Your task to perform on an android device: toggle javascript in the chrome app Image 0: 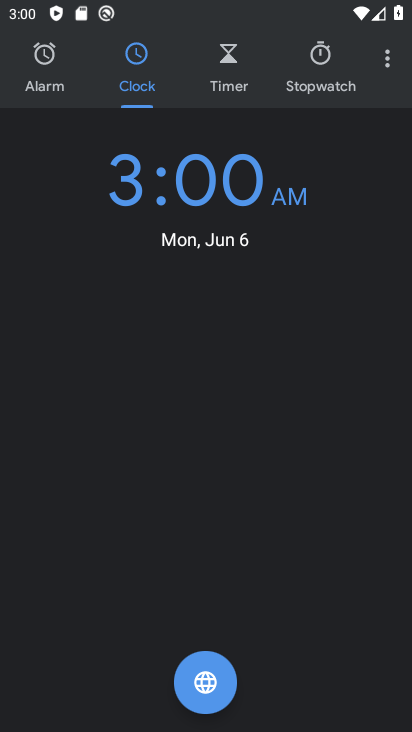
Step 0: press home button
Your task to perform on an android device: toggle javascript in the chrome app Image 1: 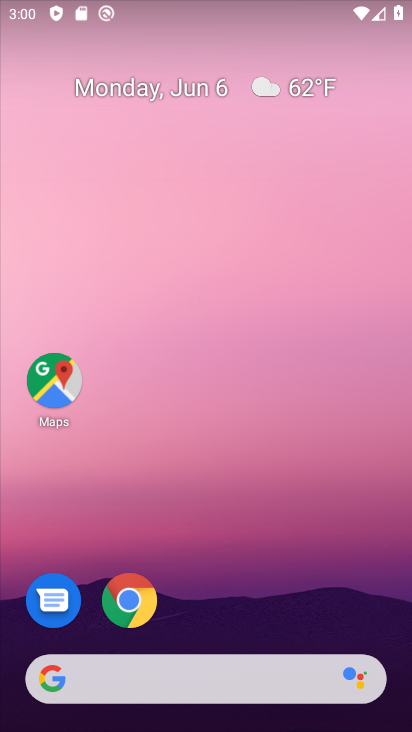
Step 1: click (132, 599)
Your task to perform on an android device: toggle javascript in the chrome app Image 2: 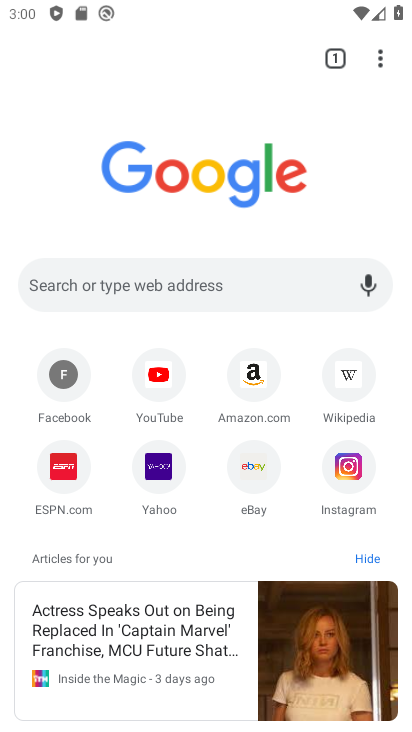
Step 2: click (382, 60)
Your task to perform on an android device: toggle javascript in the chrome app Image 3: 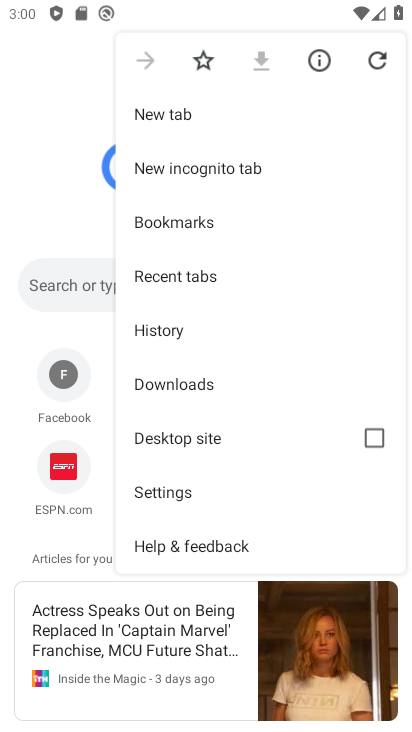
Step 3: click (169, 486)
Your task to perform on an android device: toggle javascript in the chrome app Image 4: 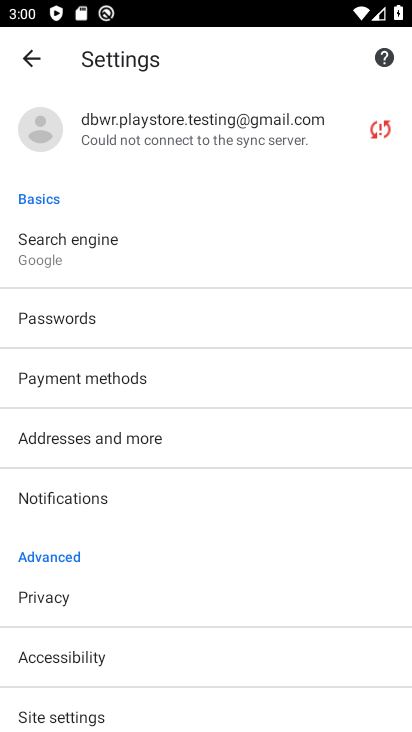
Step 4: drag from (134, 536) to (182, 433)
Your task to perform on an android device: toggle javascript in the chrome app Image 5: 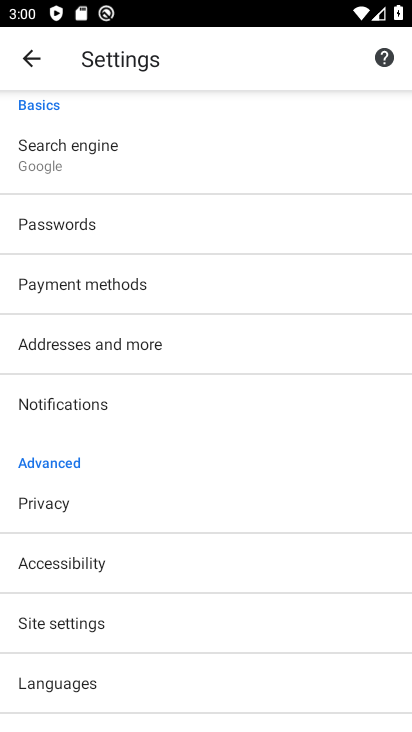
Step 5: drag from (133, 574) to (205, 477)
Your task to perform on an android device: toggle javascript in the chrome app Image 6: 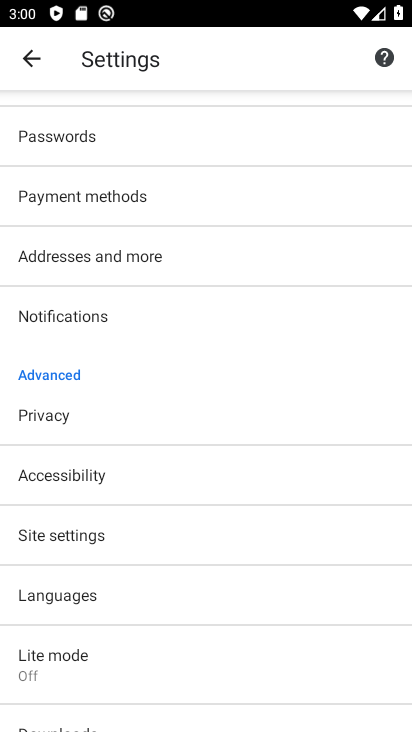
Step 6: drag from (139, 596) to (225, 504)
Your task to perform on an android device: toggle javascript in the chrome app Image 7: 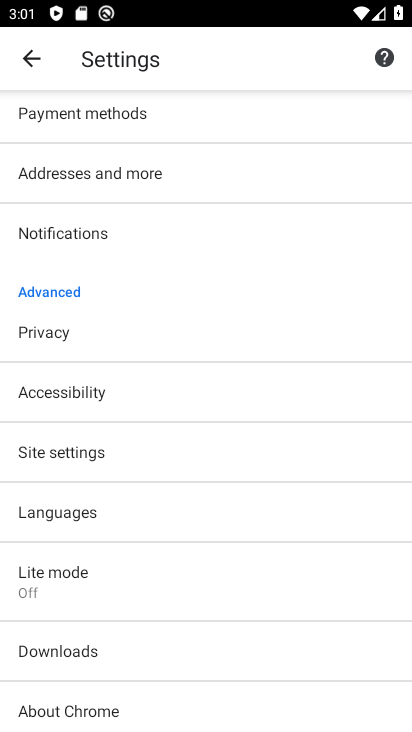
Step 7: click (86, 451)
Your task to perform on an android device: toggle javascript in the chrome app Image 8: 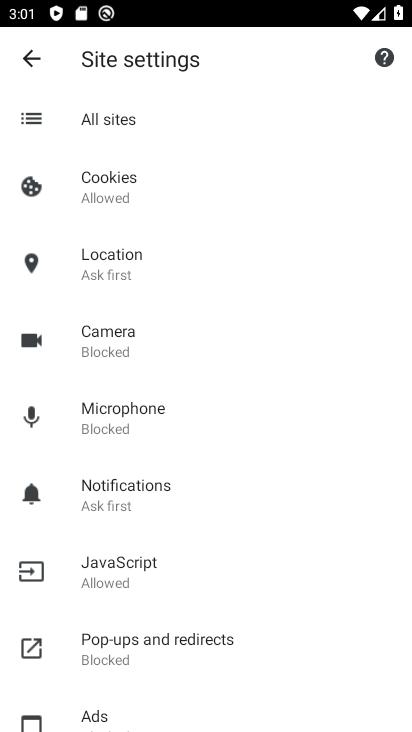
Step 8: click (153, 552)
Your task to perform on an android device: toggle javascript in the chrome app Image 9: 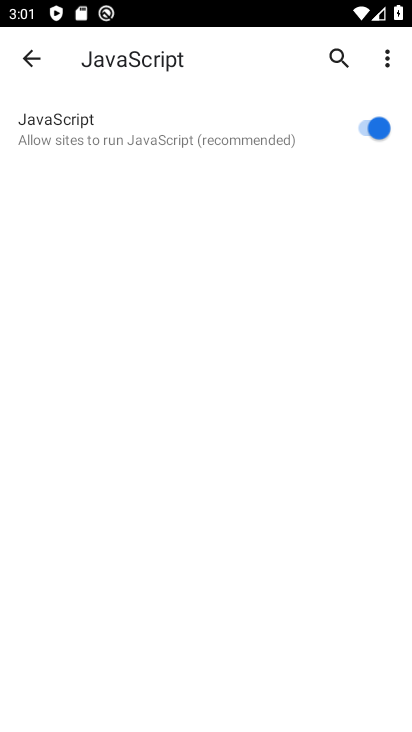
Step 9: click (356, 133)
Your task to perform on an android device: toggle javascript in the chrome app Image 10: 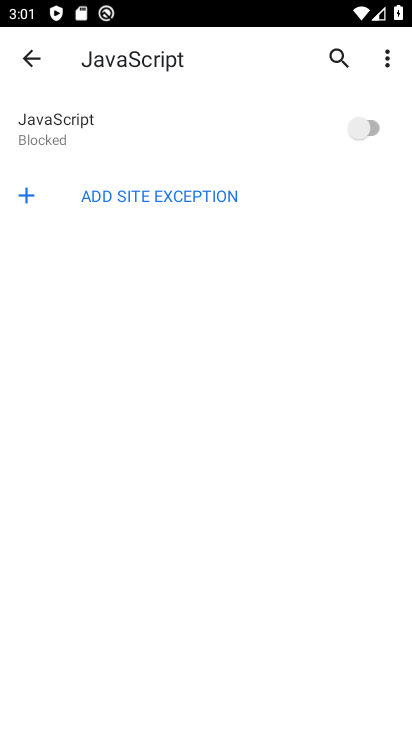
Step 10: task complete